Your task to perform on an android device: Open calendar and show me the first week of next month Image 0: 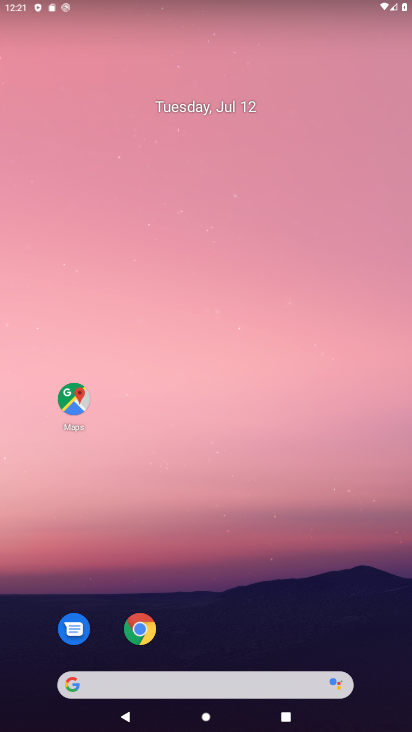
Step 0: drag from (313, 685) to (285, 113)
Your task to perform on an android device: Open calendar and show me the first week of next month Image 1: 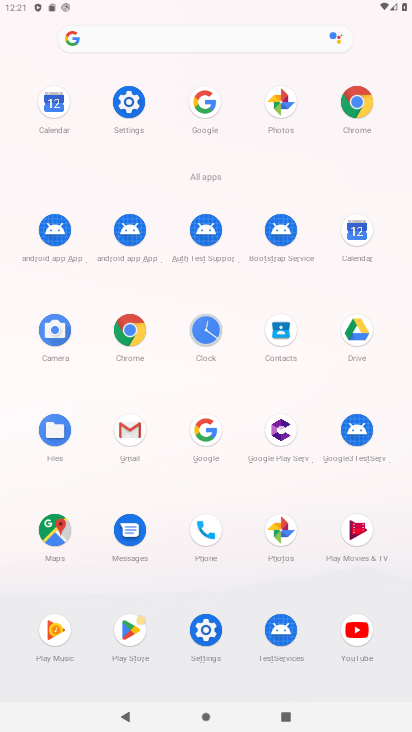
Step 1: click (358, 233)
Your task to perform on an android device: Open calendar and show me the first week of next month Image 2: 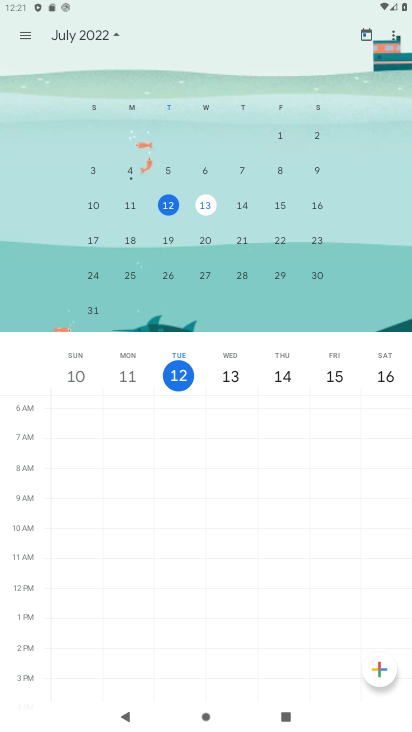
Step 2: drag from (329, 220) to (13, 243)
Your task to perform on an android device: Open calendar and show me the first week of next month Image 3: 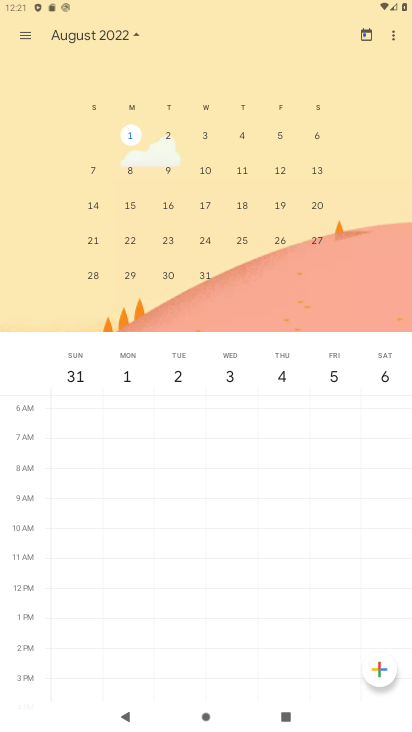
Step 3: click (242, 133)
Your task to perform on an android device: Open calendar and show me the first week of next month Image 4: 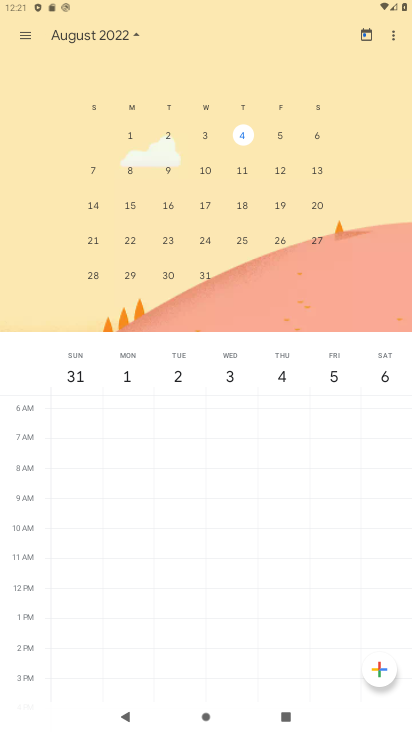
Step 4: task complete